Your task to perform on an android device: turn off javascript in the chrome app Image 0: 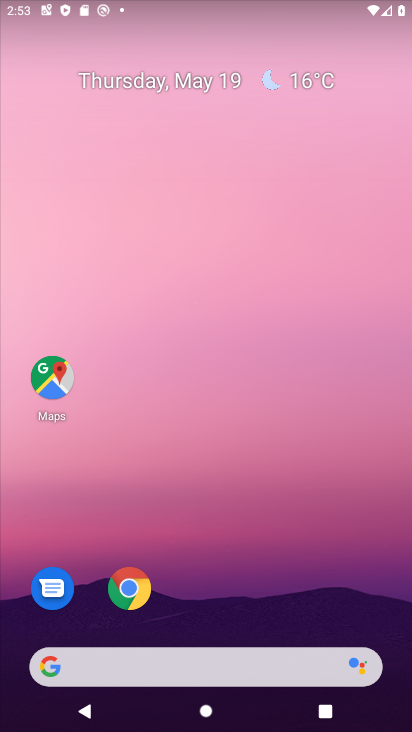
Step 0: click (127, 593)
Your task to perform on an android device: turn off javascript in the chrome app Image 1: 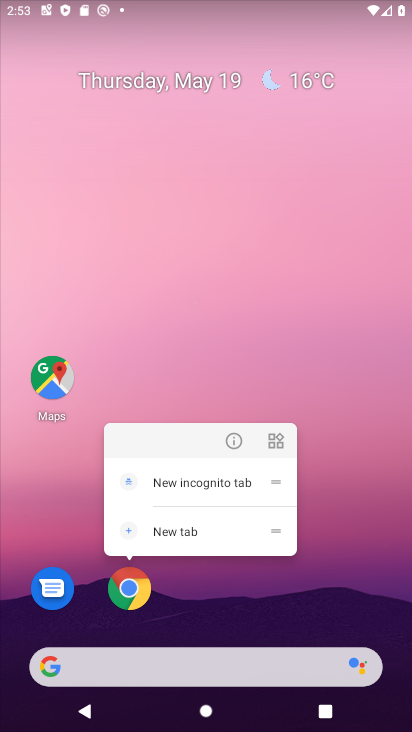
Step 1: click (128, 589)
Your task to perform on an android device: turn off javascript in the chrome app Image 2: 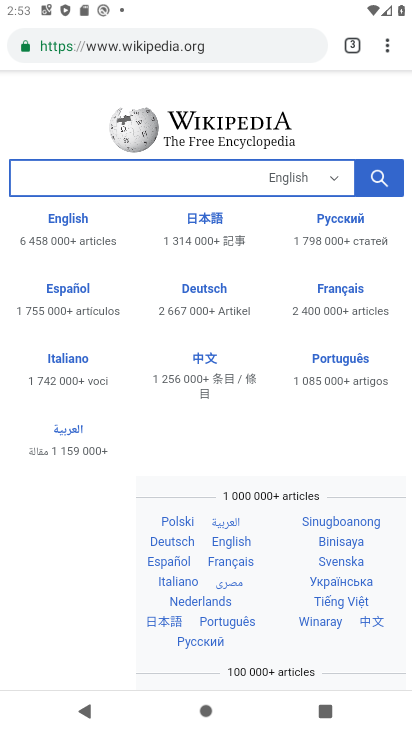
Step 2: drag from (387, 49) to (231, 550)
Your task to perform on an android device: turn off javascript in the chrome app Image 3: 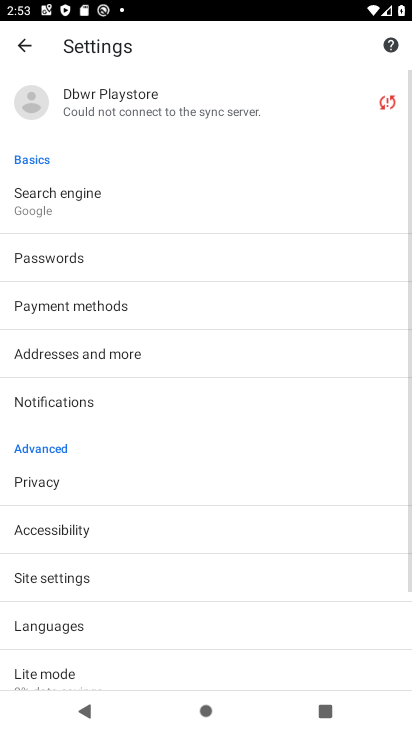
Step 3: drag from (136, 650) to (198, 285)
Your task to perform on an android device: turn off javascript in the chrome app Image 4: 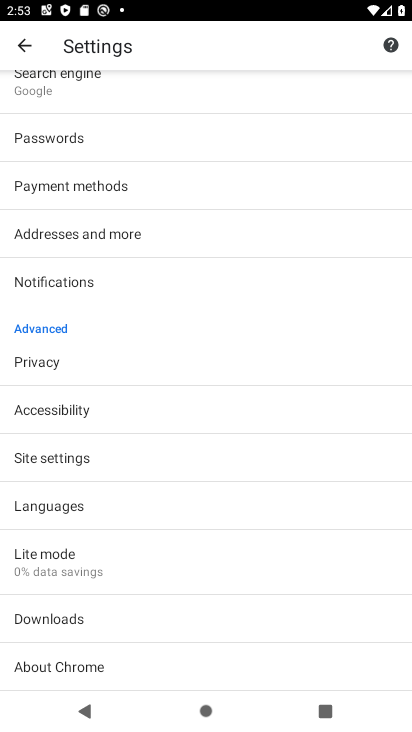
Step 4: click (67, 453)
Your task to perform on an android device: turn off javascript in the chrome app Image 5: 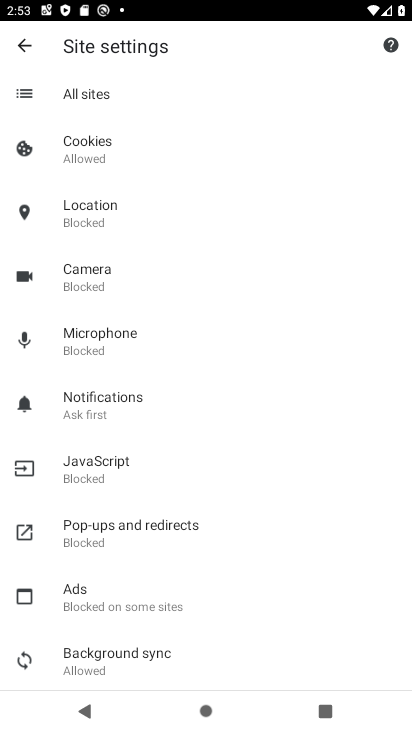
Step 5: drag from (136, 616) to (184, 374)
Your task to perform on an android device: turn off javascript in the chrome app Image 6: 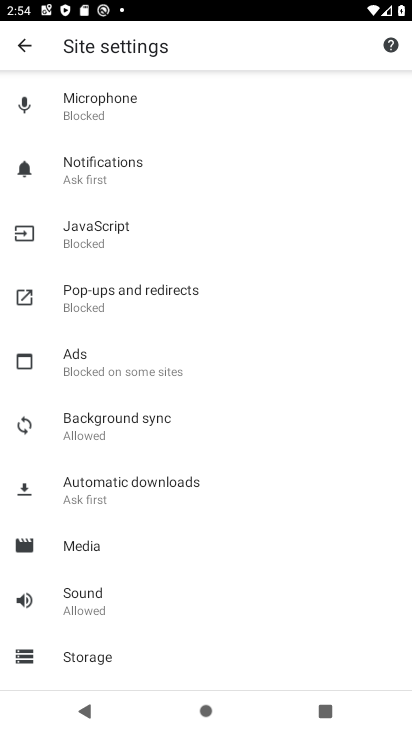
Step 6: click (94, 226)
Your task to perform on an android device: turn off javascript in the chrome app Image 7: 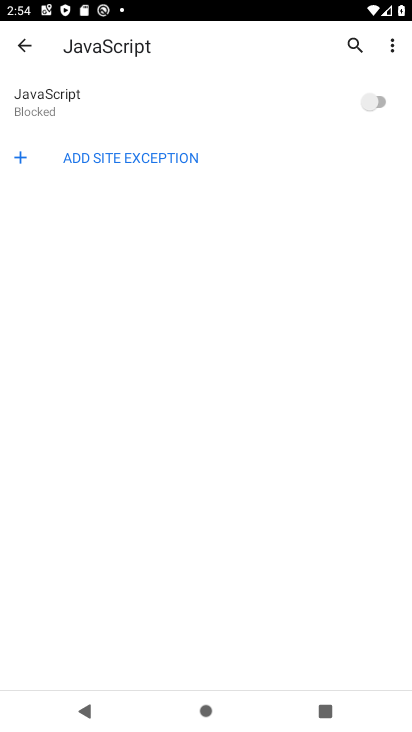
Step 7: task complete